Your task to perform on an android device: Search for Italian restaurants on Maps Image 0: 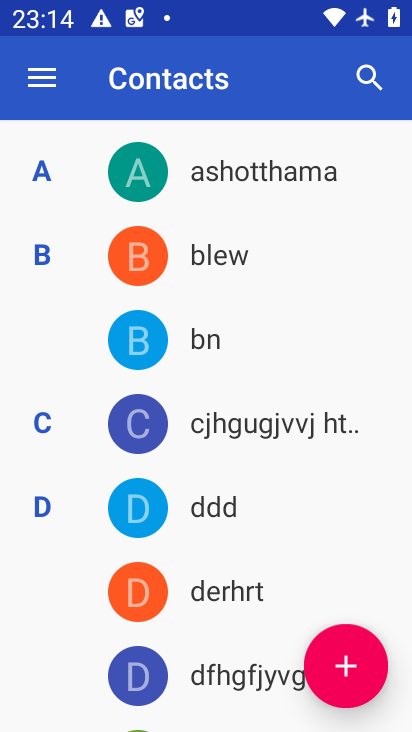
Step 0: press home button
Your task to perform on an android device: Search for Italian restaurants on Maps Image 1: 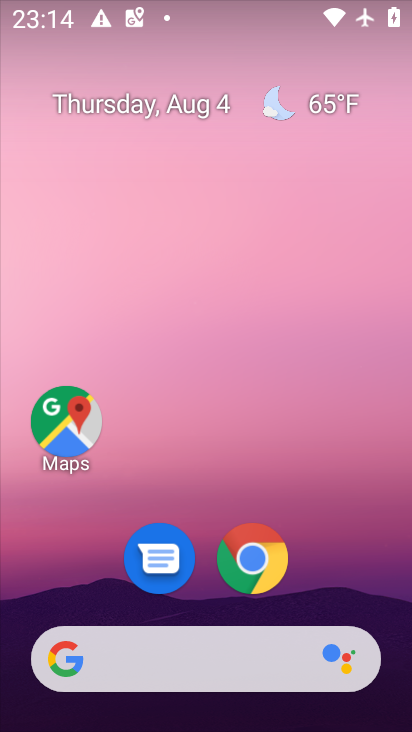
Step 1: drag from (342, 559) to (332, 149)
Your task to perform on an android device: Search for Italian restaurants on Maps Image 2: 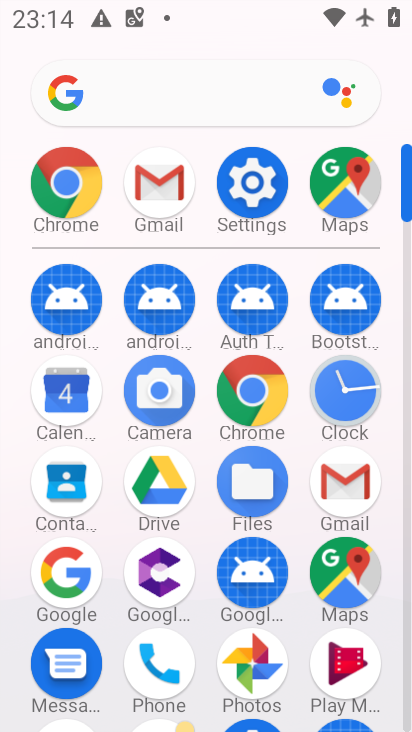
Step 2: click (332, 557)
Your task to perform on an android device: Search for Italian restaurants on Maps Image 3: 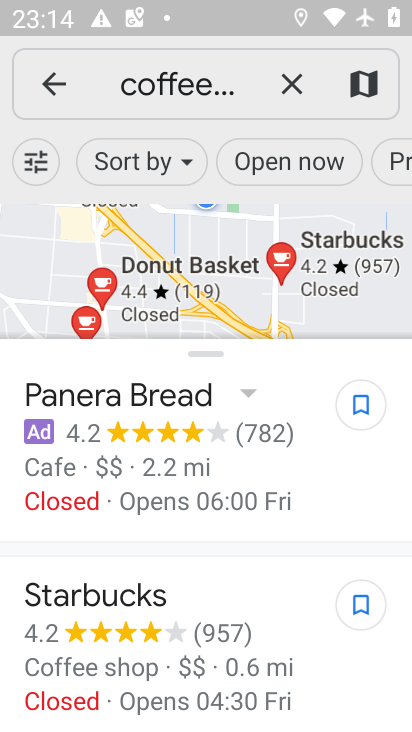
Step 3: click (242, 87)
Your task to perform on an android device: Search for Italian restaurants on Maps Image 4: 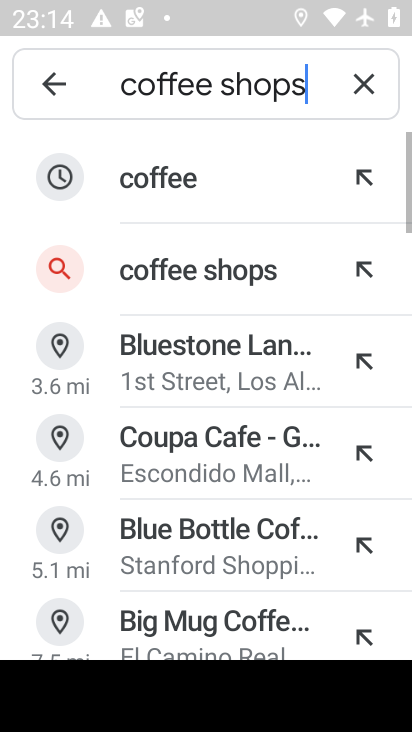
Step 4: click (367, 72)
Your task to perform on an android device: Search for Italian restaurants on Maps Image 5: 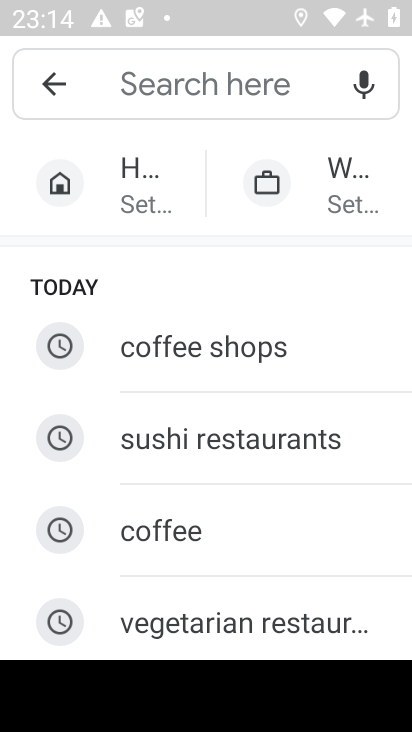
Step 5: type "Italian restaurants"
Your task to perform on an android device: Search for Italian restaurants on Maps Image 6: 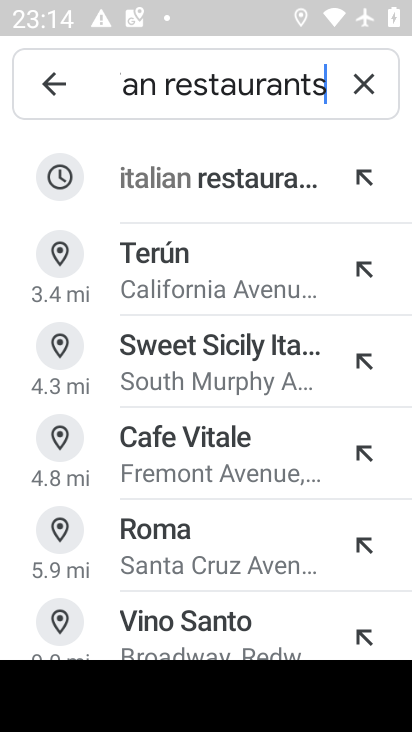
Step 6: press enter
Your task to perform on an android device: Search for Italian restaurants on Maps Image 7: 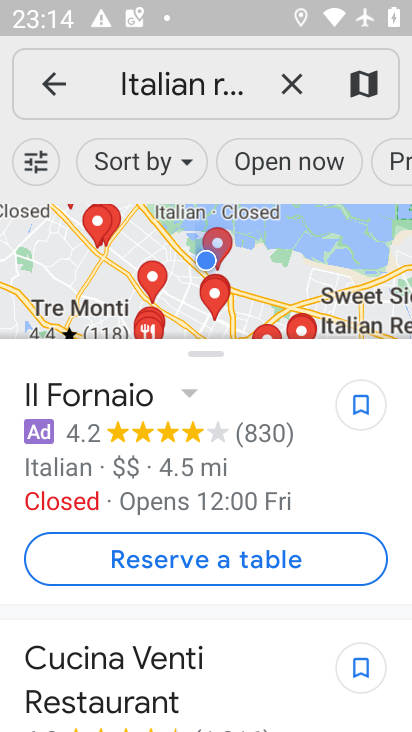
Step 7: task complete